Your task to perform on an android device: turn on data saver in the chrome app Image 0: 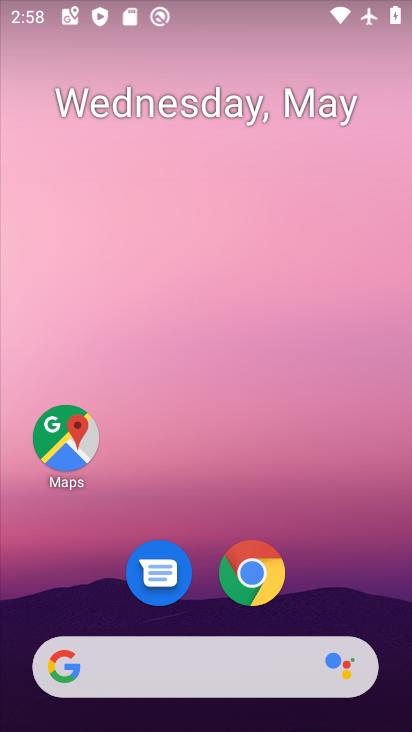
Step 0: click (252, 580)
Your task to perform on an android device: turn on data saver in the chrome app Image 1: 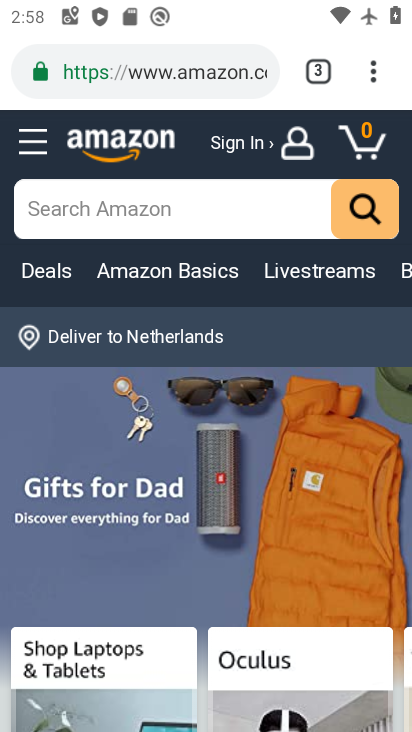
Step 1: click (367, 68)
Your task to perform on an android device: turn on data saver in the chrome app Image 2: 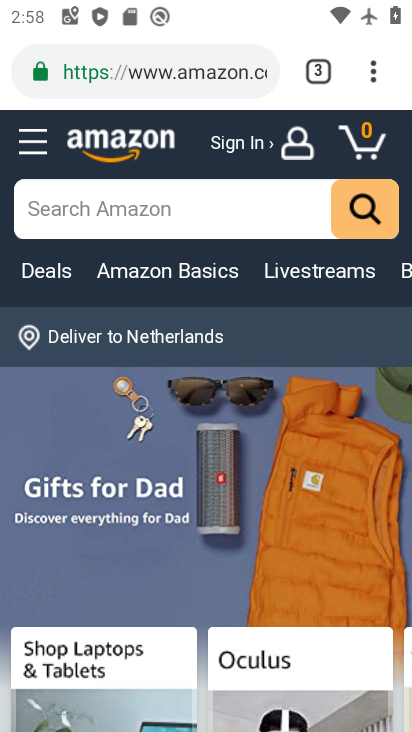
Step 2: click (367, 68)
Your task to perform on an android device: turn on data saver in the chrome app Image 3: 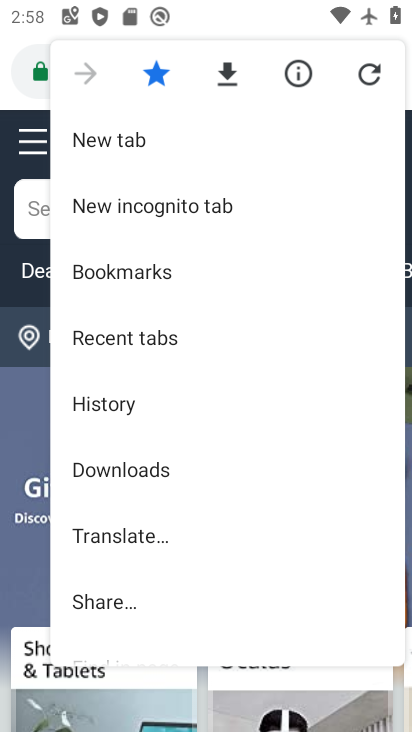
Step 3: drag from (210, 610) to (274, 339)
Your task to perform on an android device: turn on data saver in the chrome app Image 4: 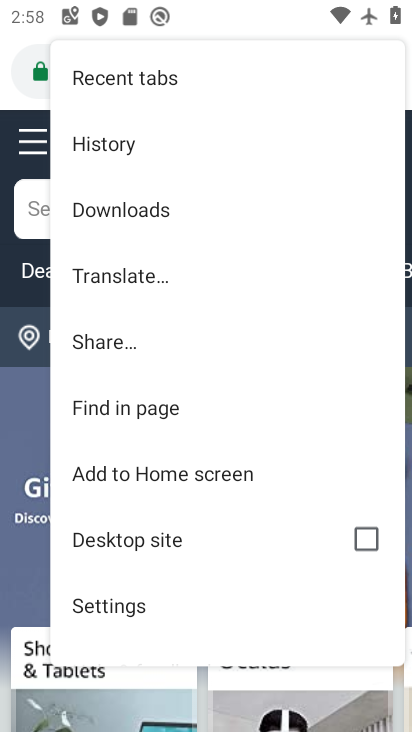
Step 4: click (165, 608)
Your task to perform on an android device: turn on data saver in the chrome app Image 5: 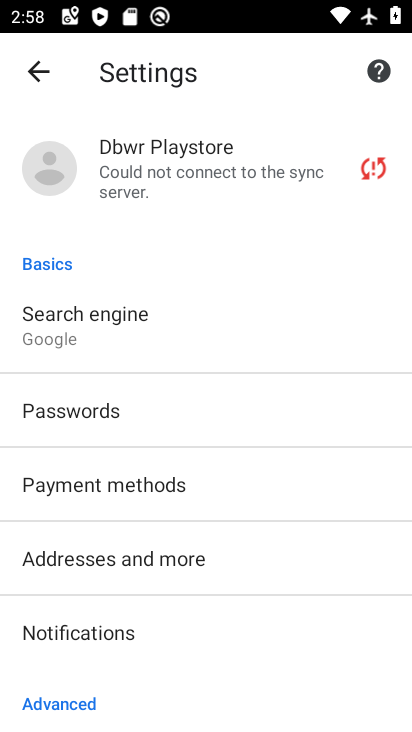
Step 5: drag from (213, 641) to (254, 316)
Your task to perform on an android device: turn on data saver in the chrome app Image 6: 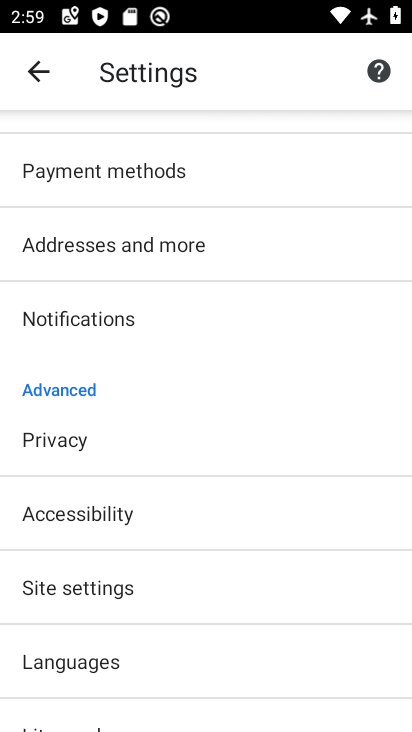
Step 6: drag from (141, 673) to (203, 413)
Your task to perform on an android device: turn on data saver in the chrome app Image 7: 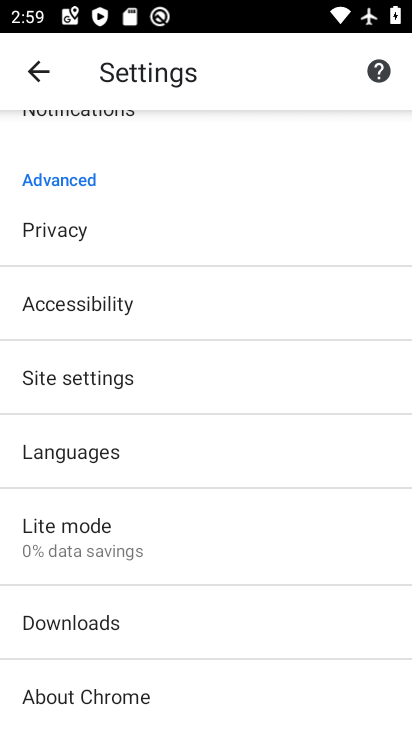
Step 7: click (140, 529)
Your task to perform on an android device: turn on data saver in the chrome app Image 8: 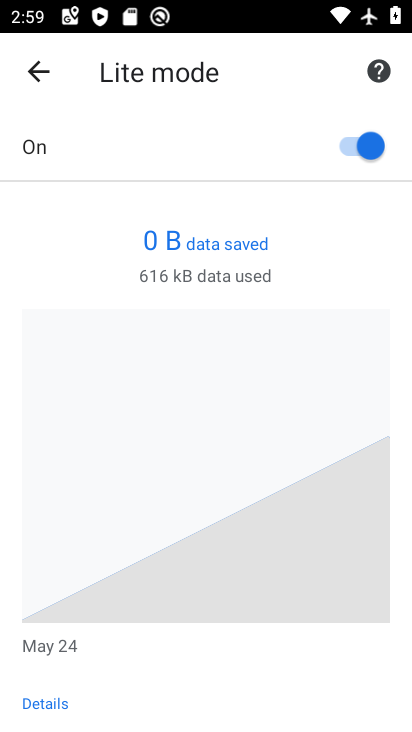
Step 8: task complete